Your task to perform on an android device: open chrome and create a bookmark for the current page Image 0: 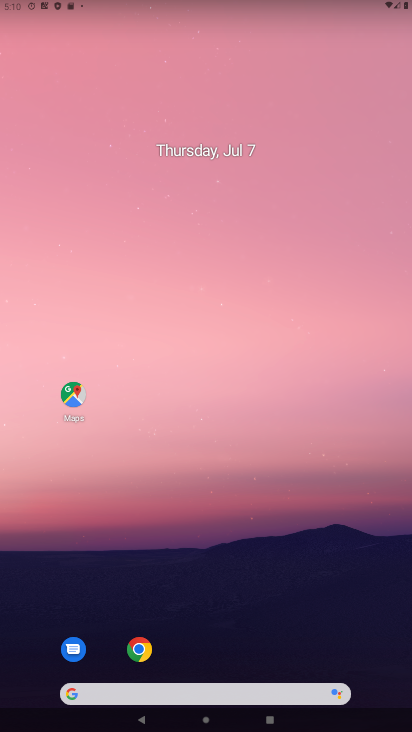
Step 0: click (157, 1)
Your task to perform on an android device: open chrome and create a bookmark for the current page Image 1: 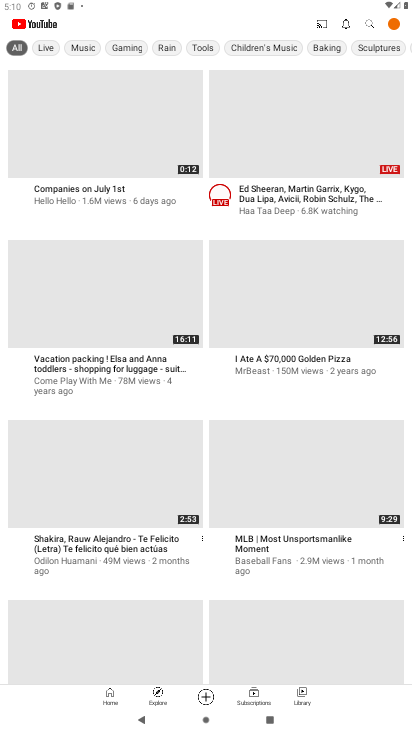
Step 1: press home button
Your task to perform on an android device: open chrome and create a bookmark for the current page Image 2: 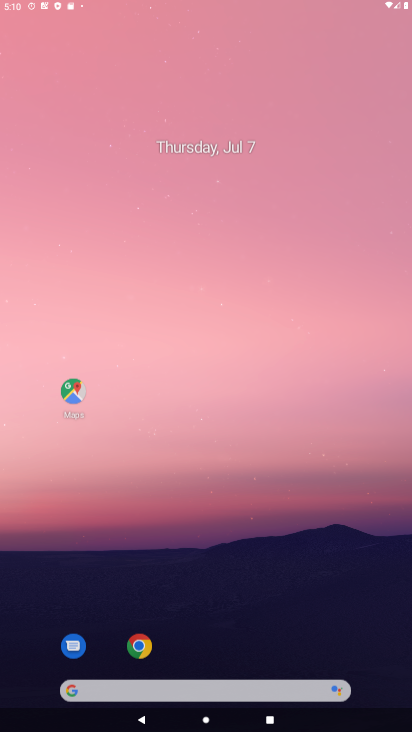
Step 2: drag from (356, 703) to (225, 1)
Your task to perform on an android device: open chrome and create a bookmark for the current page Image 3: 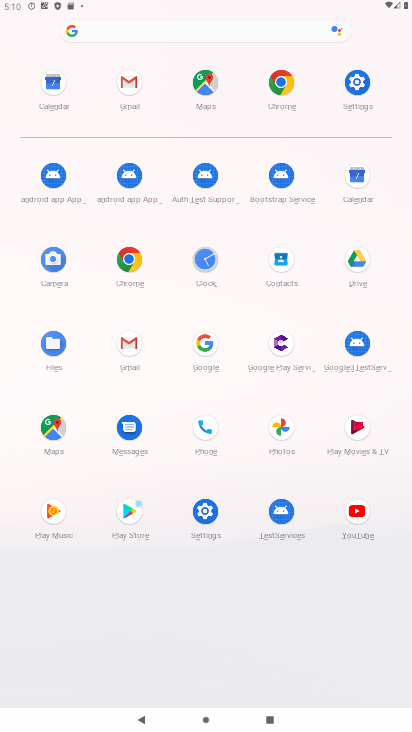
Step 3: click (285, 83)
Your task to perform on an android device: open chrome and create a bookmark for the current page Image 4: 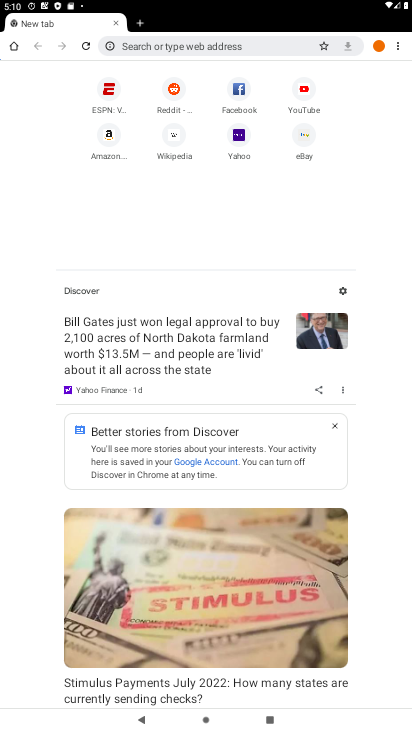
Step 4: click (394, 42)
Your task to perform on an android device: open chrome and create a bookmark for the current page Image 5: 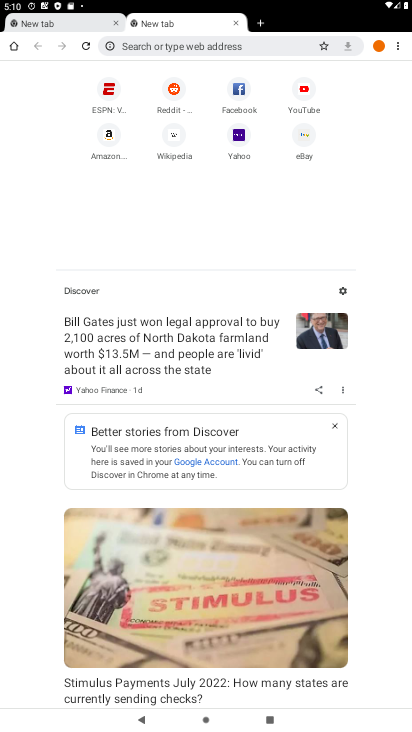
Step 5: click (394, 42)
Your task to perform on an android device: open chrome and create a bookmark for the current page Image 6: 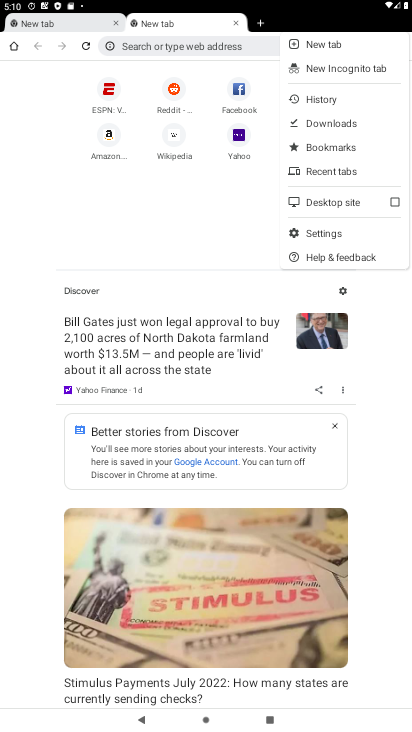
Step 6: click (315, 153)
Your task to perform on an android device: open chrome and create a bookmark for the current page Image 7: 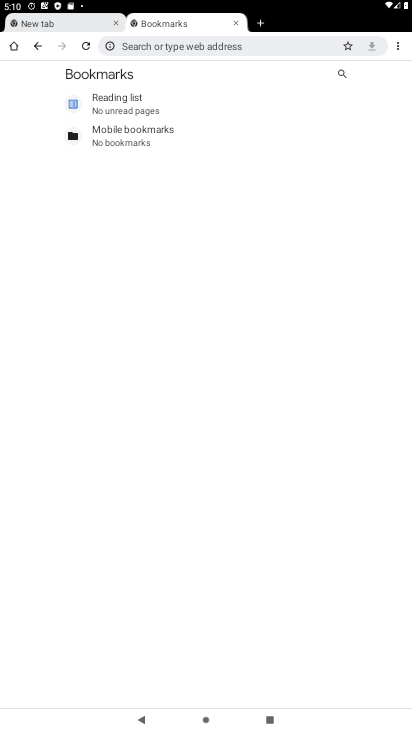
Step 7: click (346, 42)
Your task to perform on an android device: open chrome and create a bookmark for the current page Image 8: 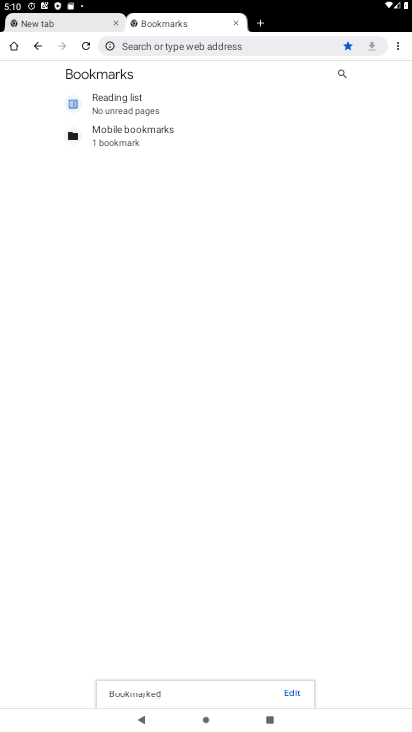
Step 8: task complete